Your task to perform on an android device: install app "Facebook Messenger" Image 0: 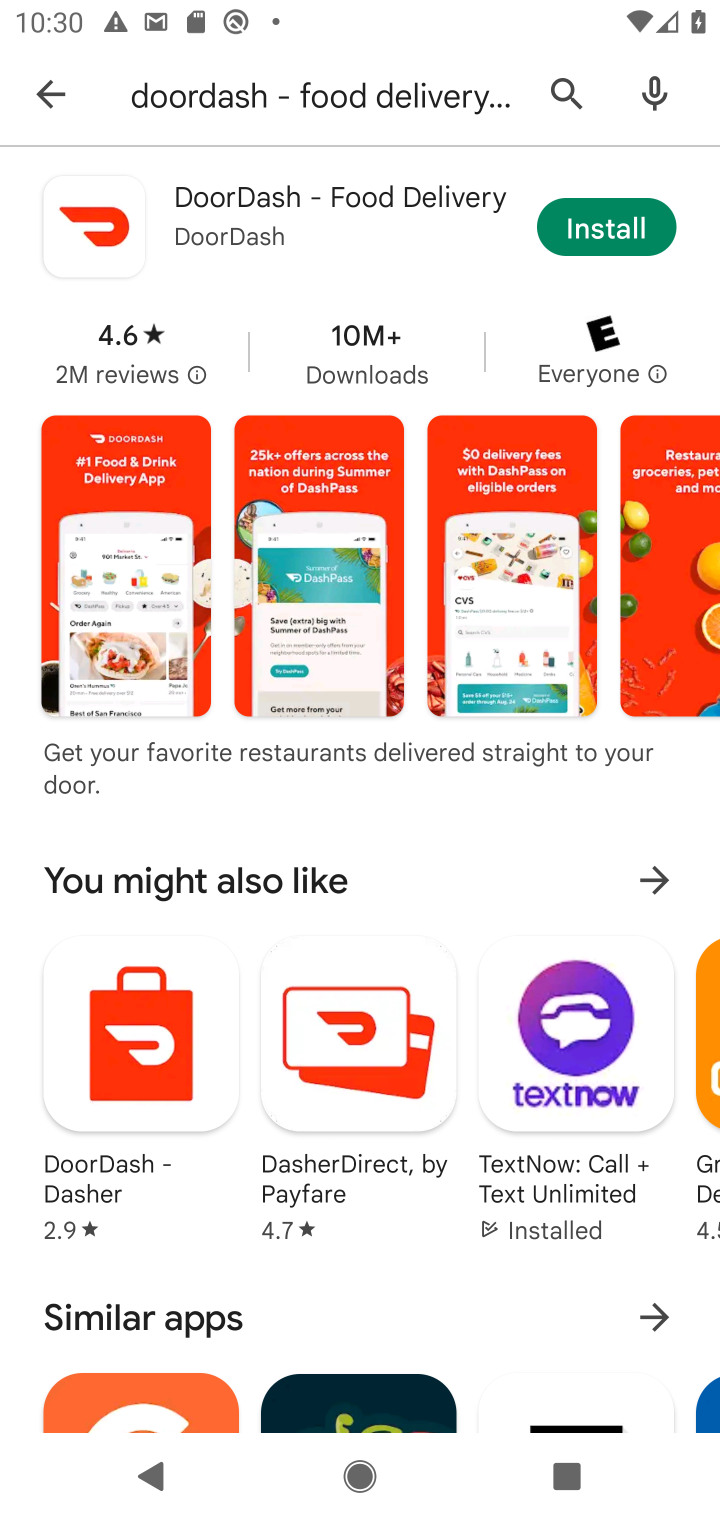
Step 0: press home button
Your task to perform on an android device: install app "Facebook Messenger" Image 1: 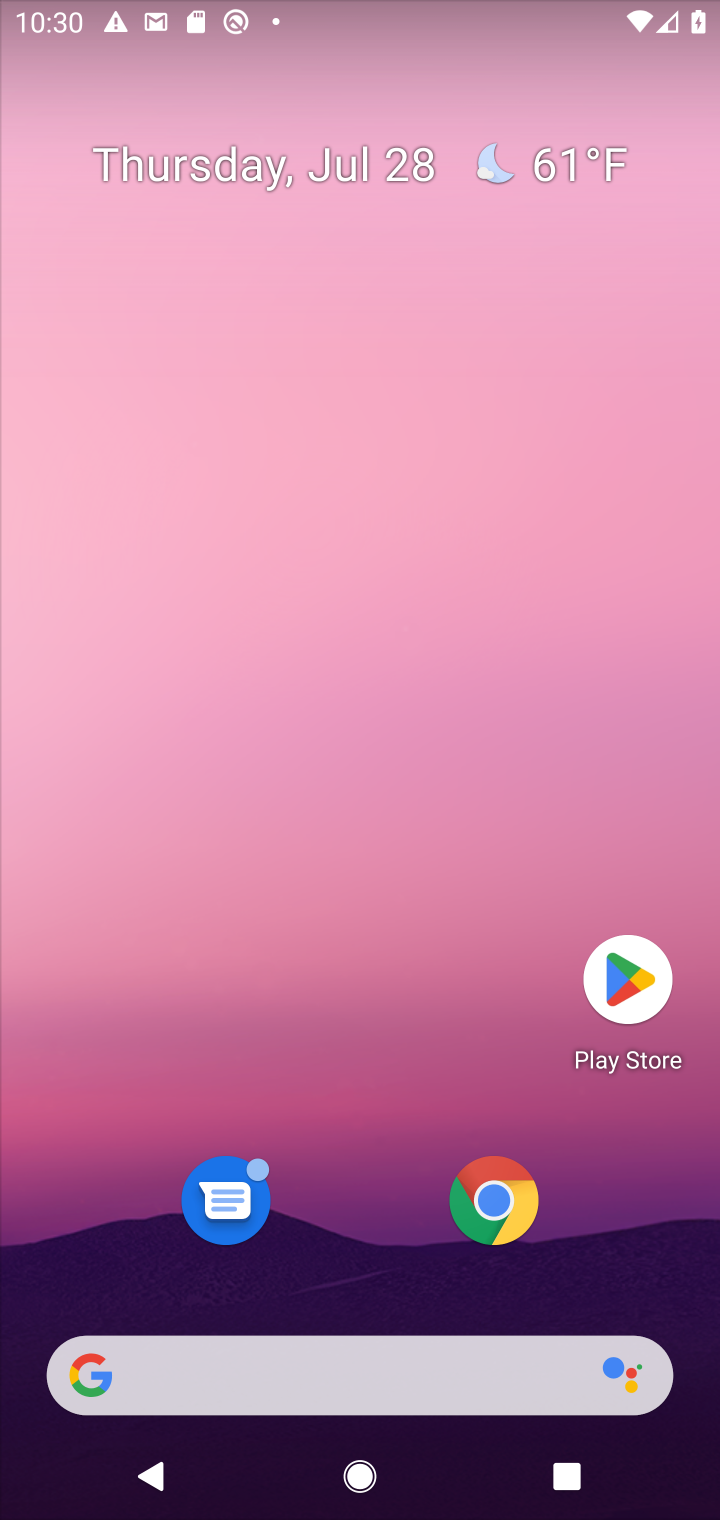
Step 1: click (621, 987)
Your task to perform on an android device: install app "Facebook Messenger" Image 2: 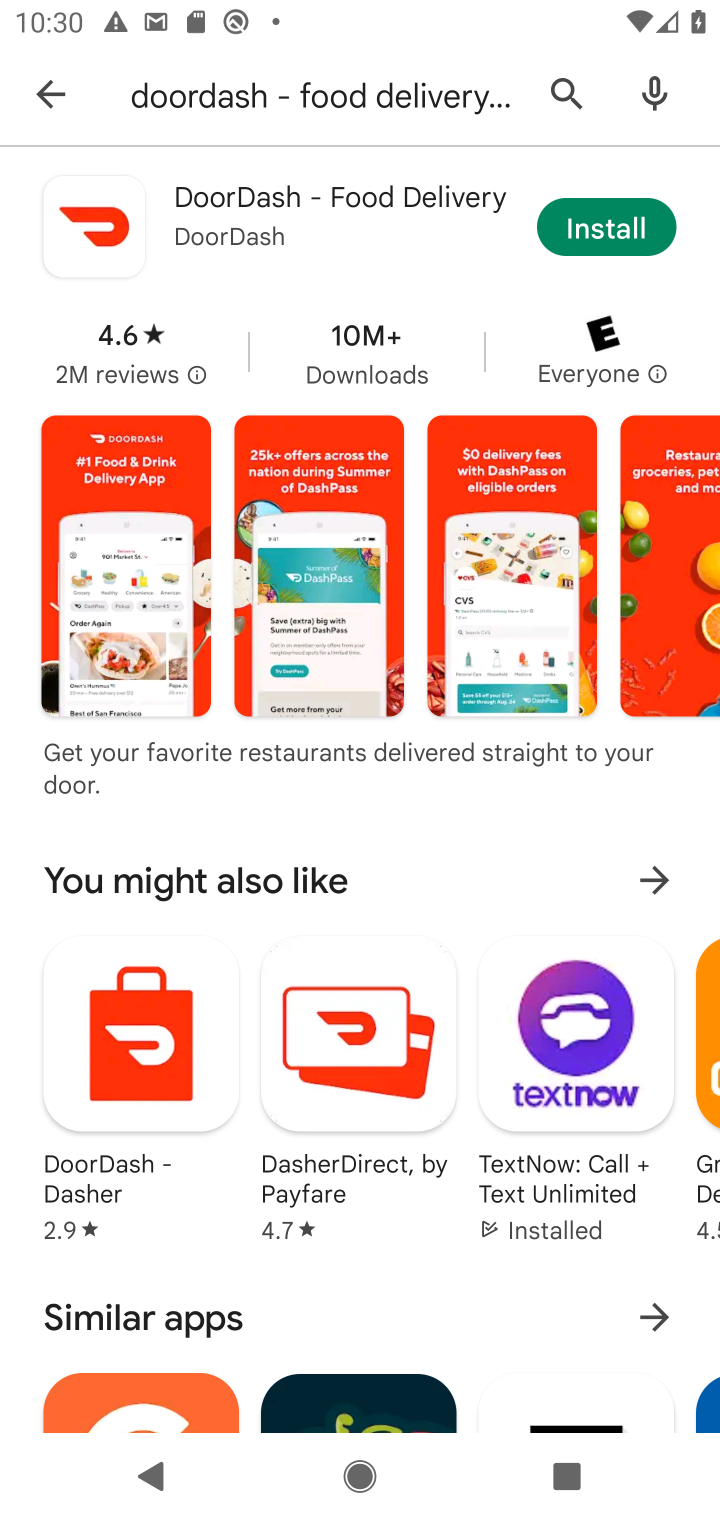
Step 2: click (572, 93)
Your task to perform on an android device: install app "Facebook Messenger" Image 3: 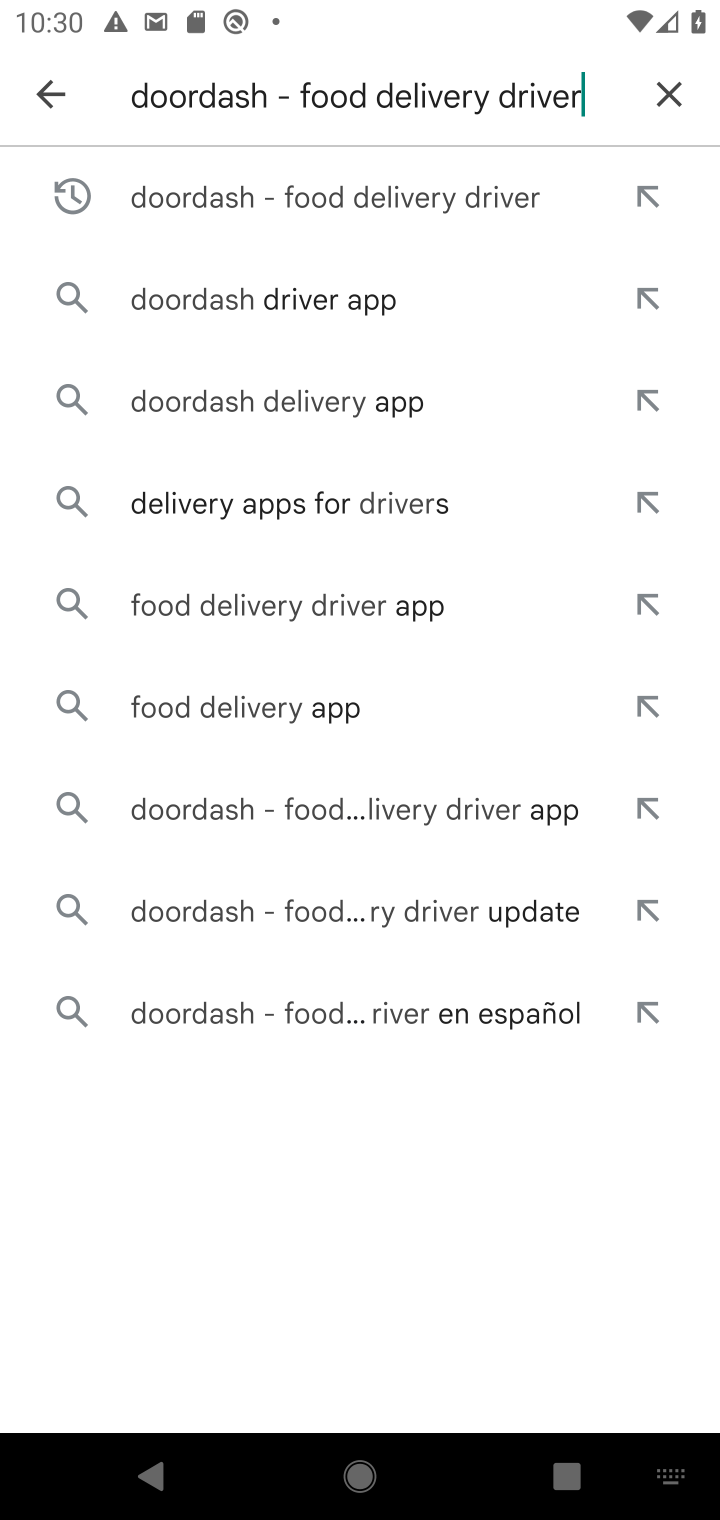
Step 3: click (669, 98)
Your task to perform on an android device: install app "Facebook Messenger" Image 4: 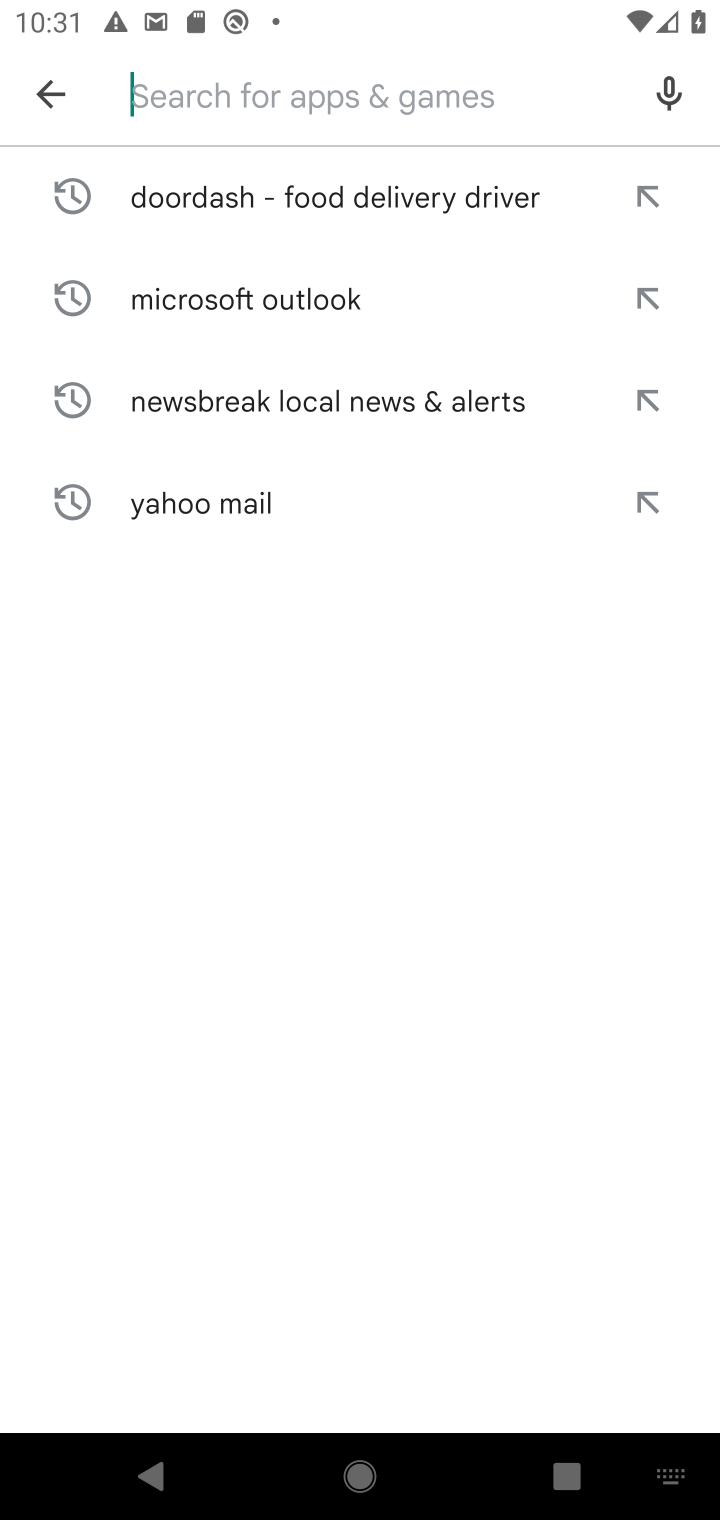
Step 4: type "Facebook Messenger"
Your task to perform on an android device: install app "Facebook Messenger" Image 5: 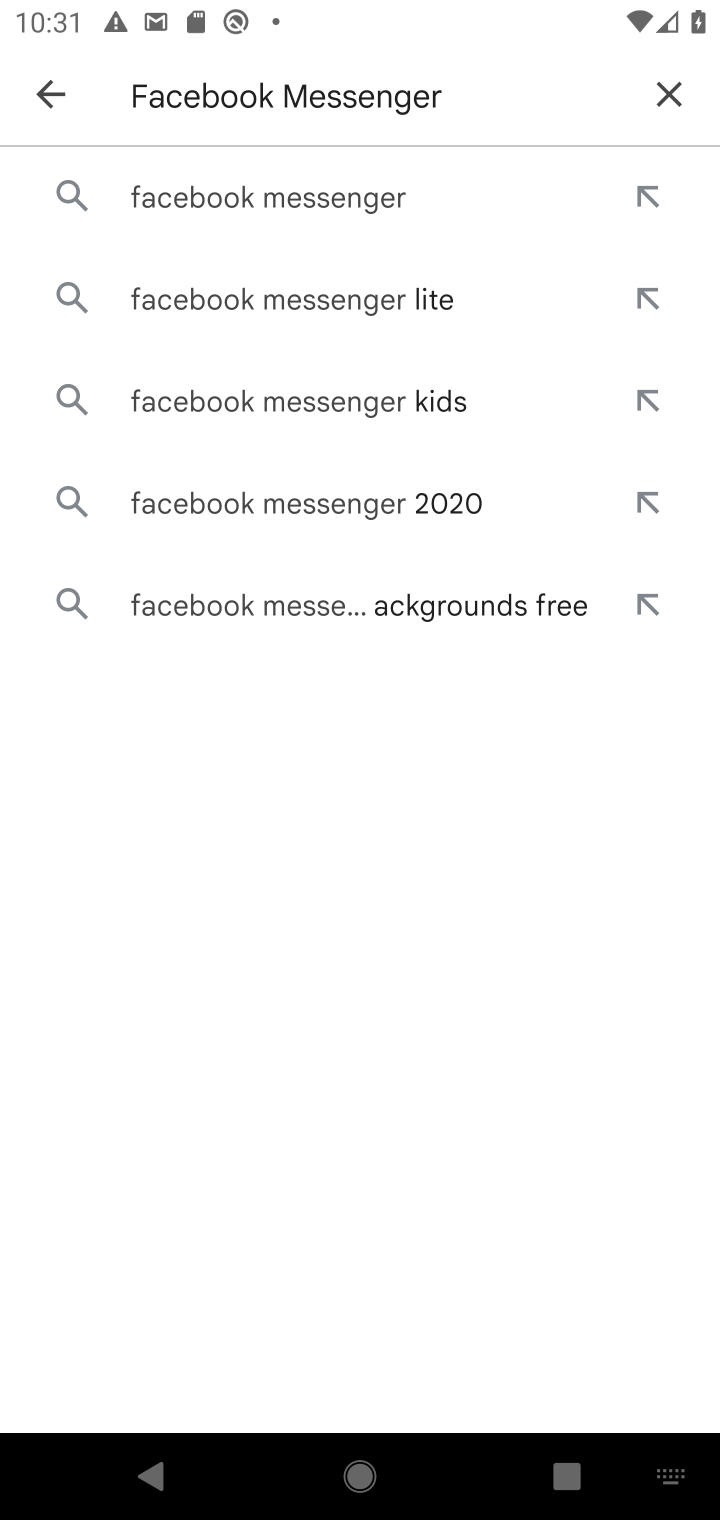
Step 5: click (284, 197)
Your task to perform on an android device: install app "Facebook Messenger" Image 6: 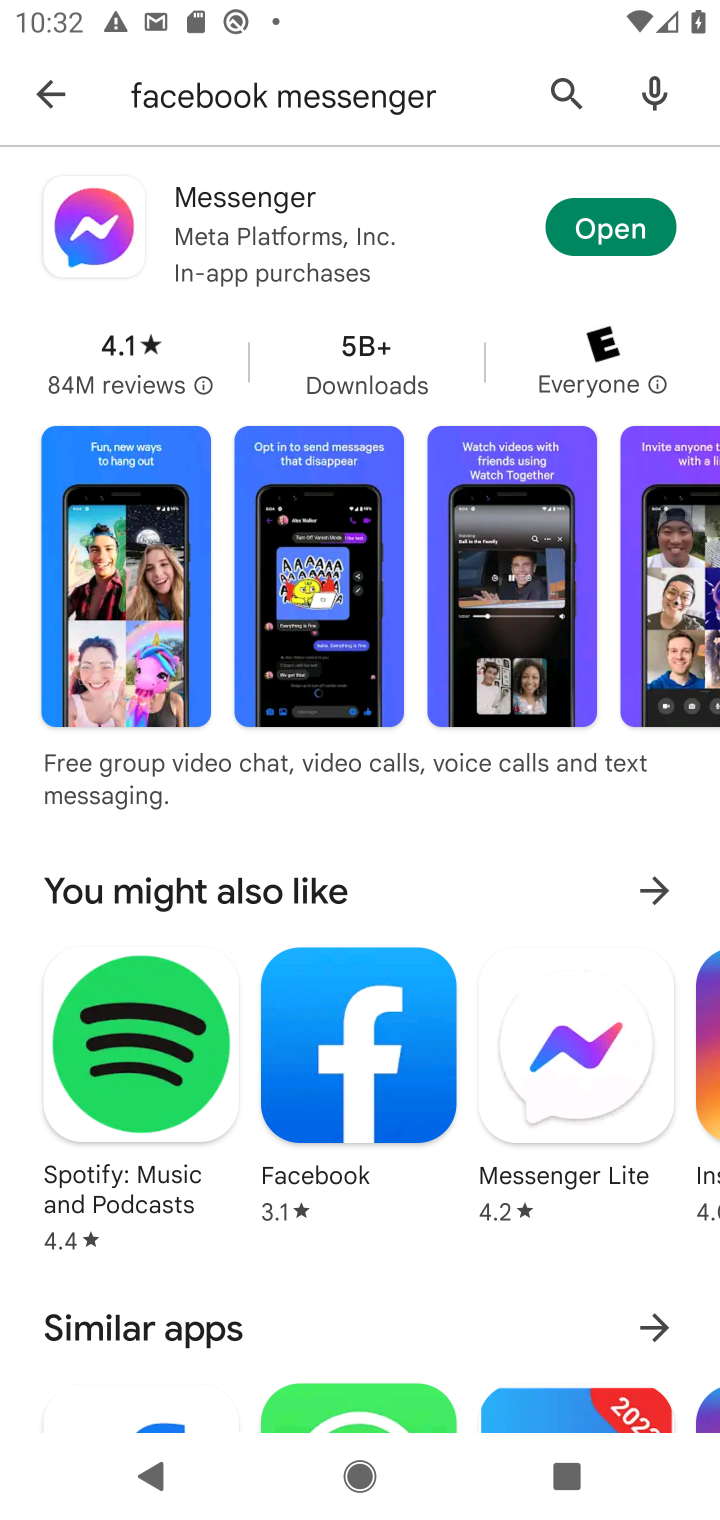
Step 6: task complete